Your task to perform on an android device: uninstall "Etsy: Buy & Sell Unique Items" Image 0: 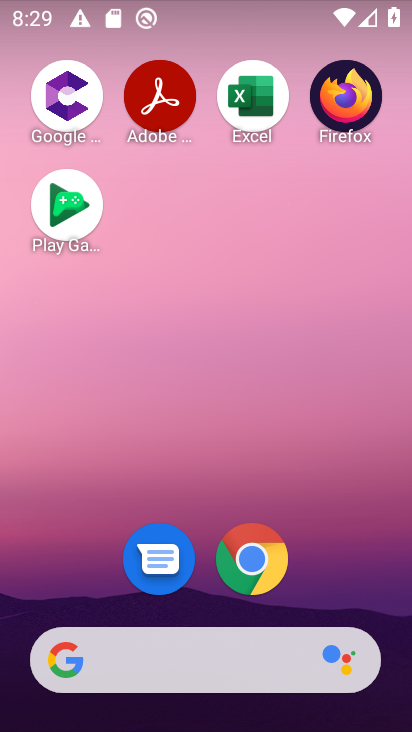
Step 0: drag from (197, 570) to (170, 146)
Your task to perform on an android device: uninstall "Etsy: Buy & Sell Unique Items" Image 1: 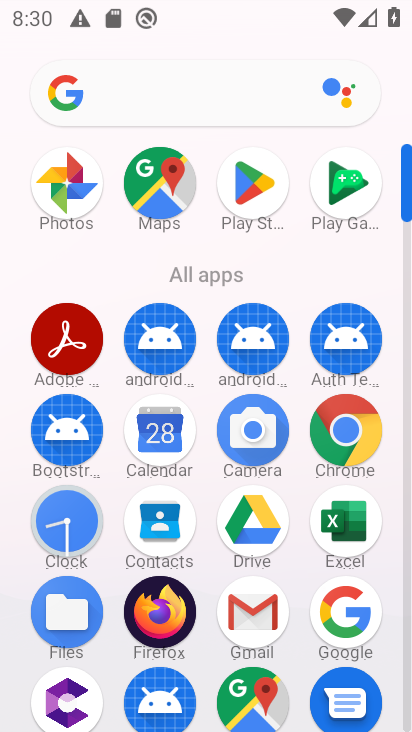
Step 1: click (247, 166)
Your task to perform on an android device: uninstall "Etsy: Buy & Sell Unique Items" Image 2: 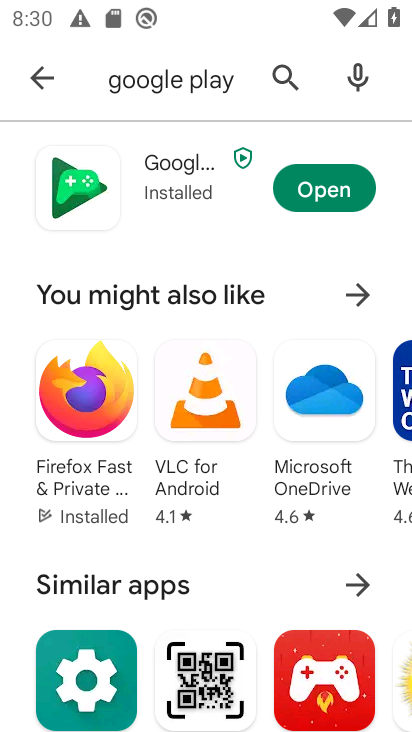
Step 2: click (283, 85)
Your task to perform on an android device: uninstall "Etsy: Buy & Sell Unique Items" Image 3: 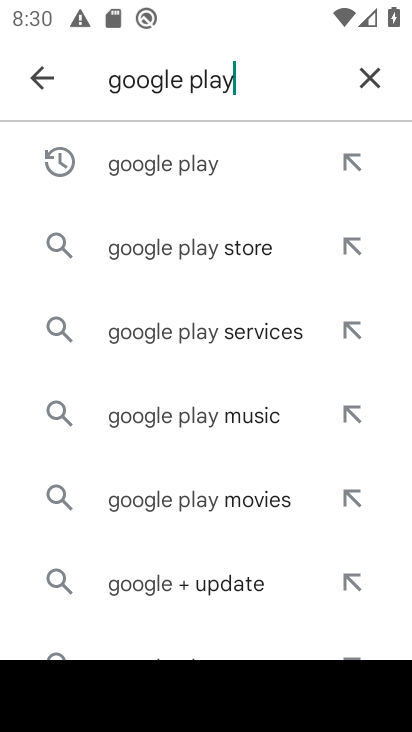
Step 3: click (367, 81)
Your task to perform on an android device: uninstall "Etsy: Buy & Sell Unique Items" Image 4: 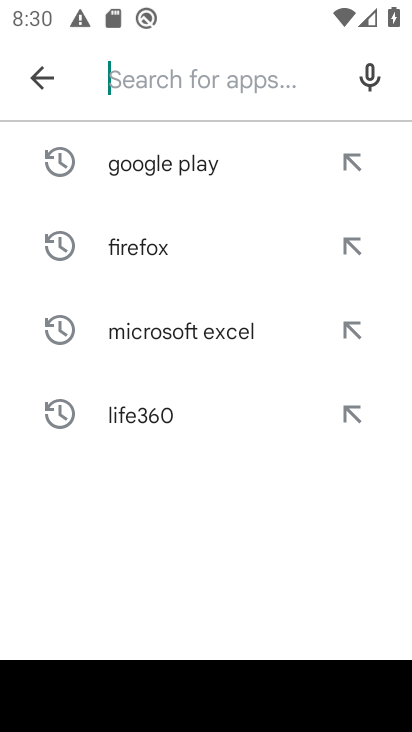
Step 4: type "etsy"
Your task to perform on an android device: uninstall "Etsy: Buy & Sell Unique Items" Image 5: 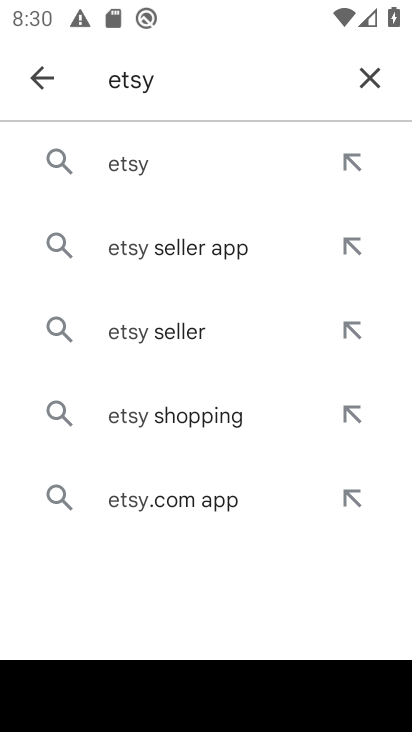
Step 5: click (142, 167)
Your task to perform on an android device: uninstall "Etsy: Buy & Sell Unique Items" Image 6: 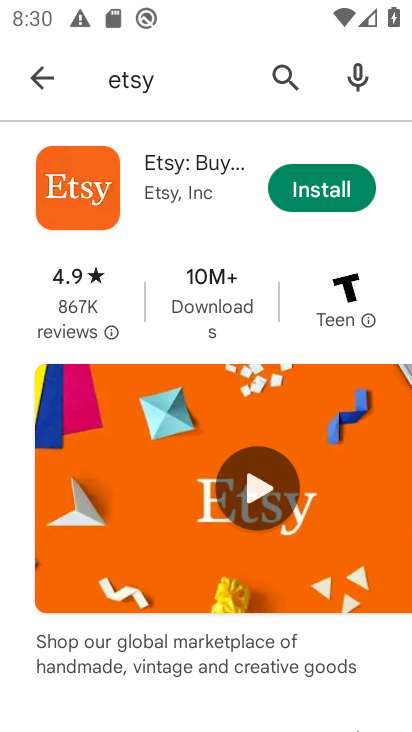
Step 6: task complete